Your task to perform on an android device: toggle pop-ups in chrome Image 0: 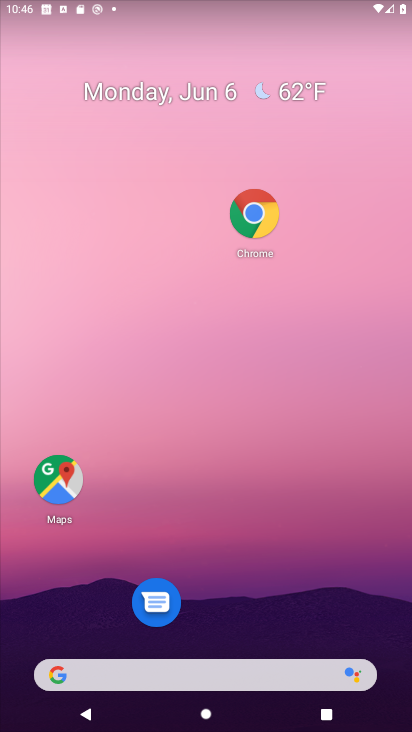
Step 0: drag from (187, 657) to (221, 129)
Your task to perform on an android device: toggle pop-ups in chrome Image 1: 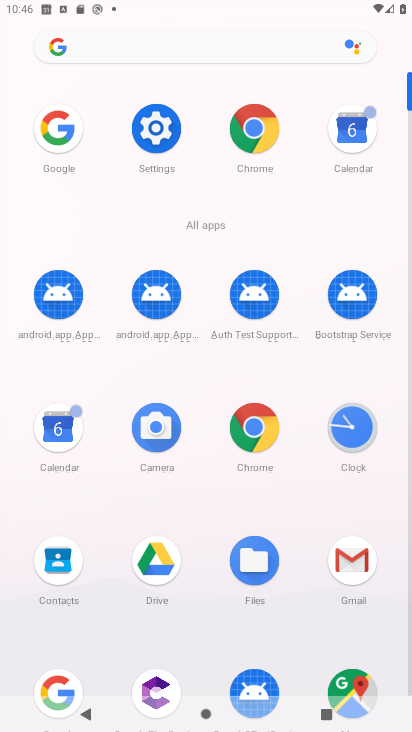
Step 1: click (248, 121)
Your task to perform on an android device: toggle pop-ups in chrome Image 2: 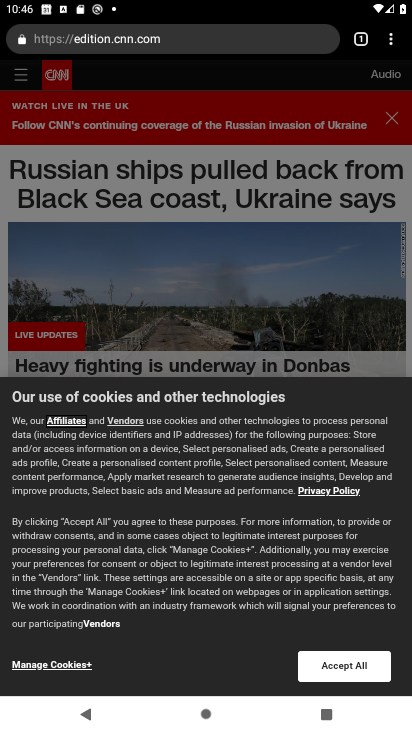
Step 2: click (394, 42)
Your task to perform on an android device: toggle pop-ups in chrome Image 3: 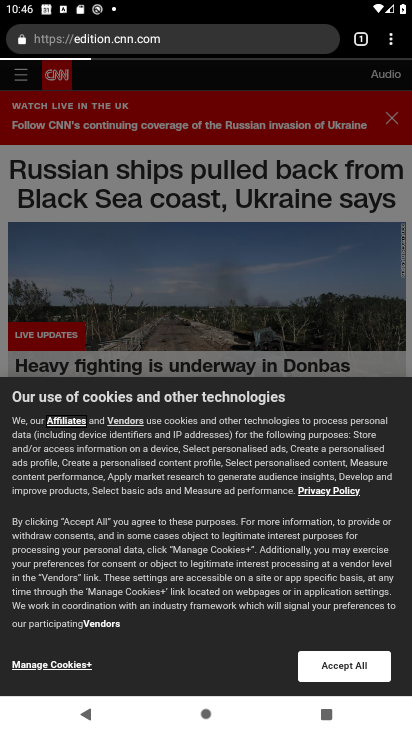
Step 3: click (393, 42)
Your task to perform on an android device: toggle pop-ups in chrome Image 4: 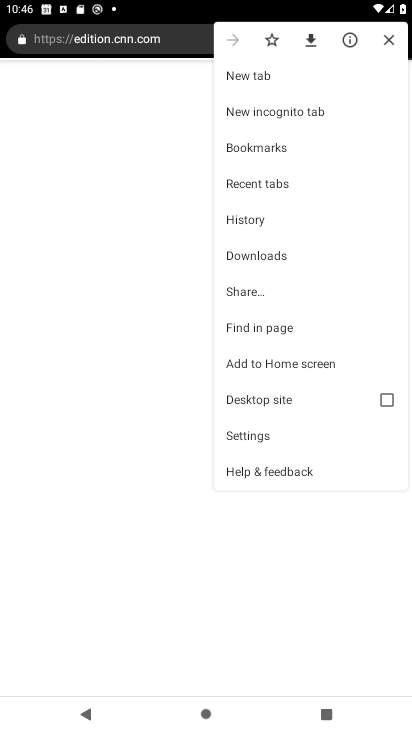
Step 4: click (277, 435)
Your task to perform on an android device: toggle pop-ups in chrome Image 5: 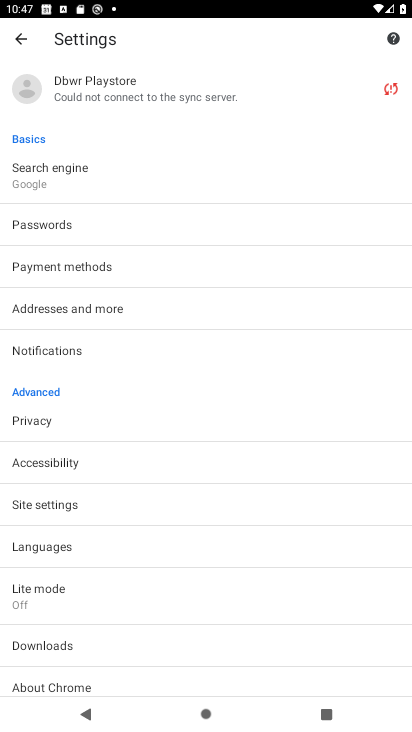
Step 5: click (76, 507)
Your task to perform on an android device: toggle pop-ups in chrome Image 6: 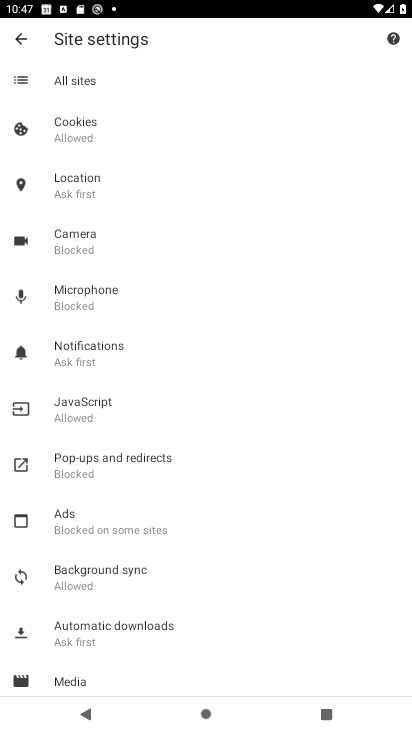
Step 6: click (138, 466)
Your task to perform on an android device: toggle pop-ups in chrome Image 7: 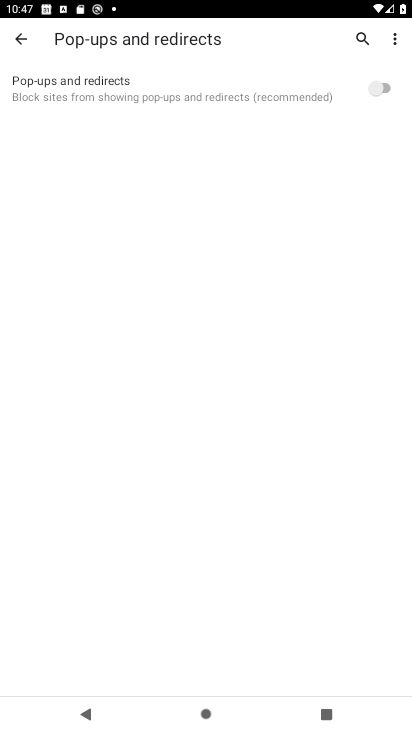
Step 7: click (365, 82)
Your task to perform on an android device: toggle pop-ups in chrome Image 8: 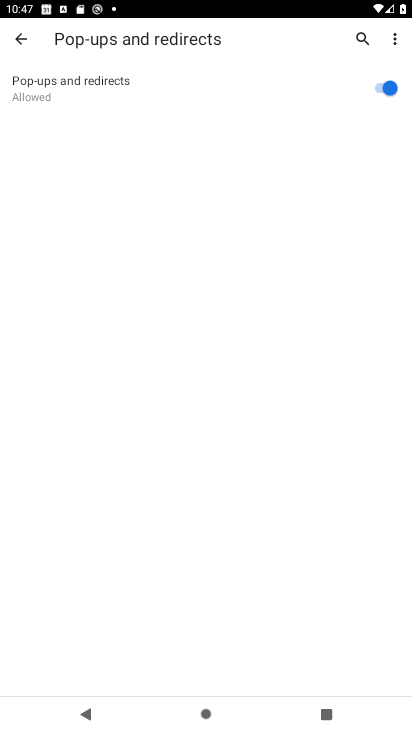
Step 8: task complete